Your task to perform on an android device: Open Reddit.com Image 0: 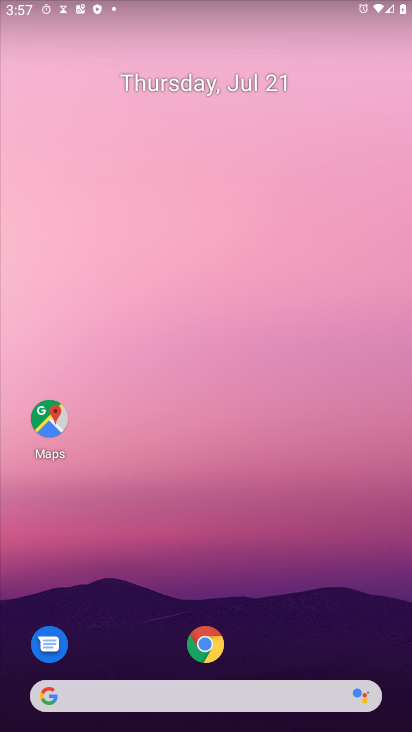
Step 0: press home button
Your task to perform on an android device: Open Reddit.com Image 1: 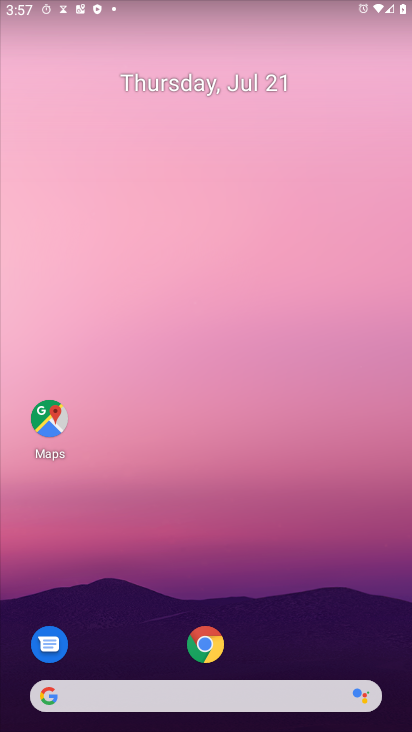
Step 1: click (43, 692)
Your task to perform on an android device: Open Reddit.com Image 2: 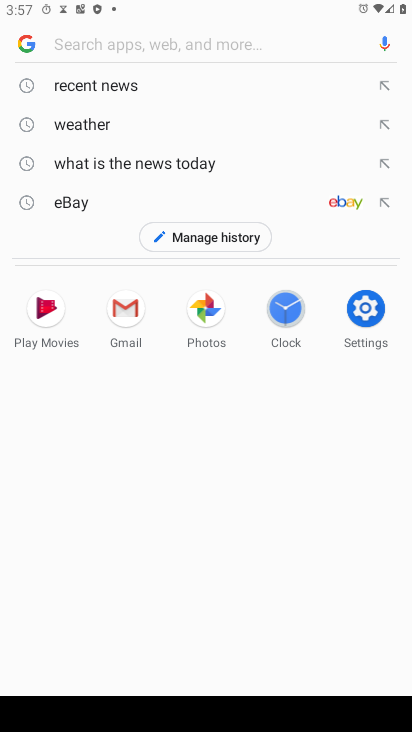
Step 2: type " Reddit.com"
Your task to perform on an android device: Open Reddit.com Image 3: 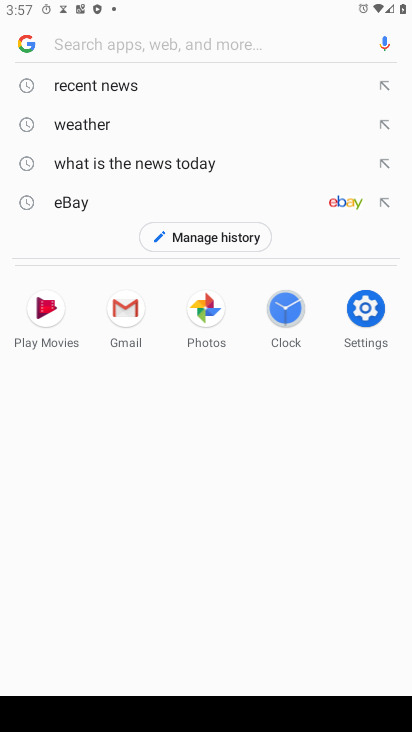
Step 3: click (82, 43)
Your task to perform on an android device: Open Reddit.com Image 4: 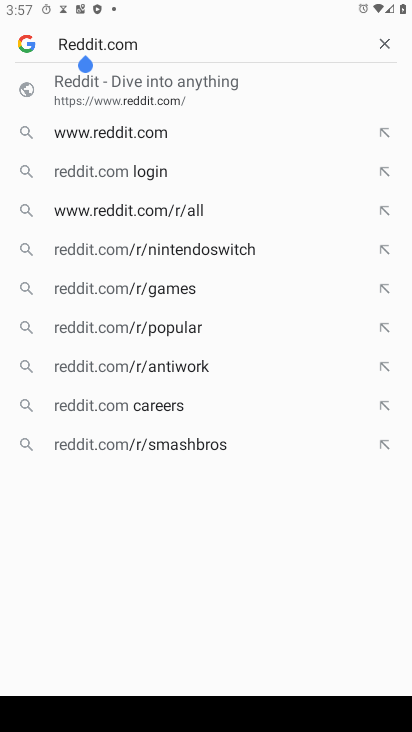
Step 4: press enter
Your task to perform on an android device: Open Reddit.com Image 5: 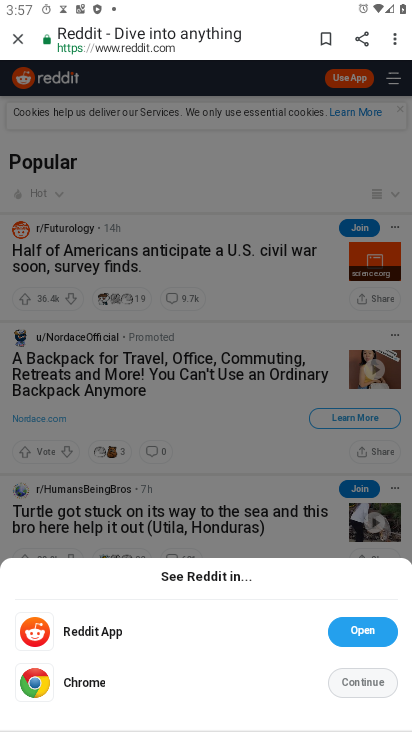
Step 5: task complete